Your task to perform on an android device: see sites visited before in the chrome app Image 0: 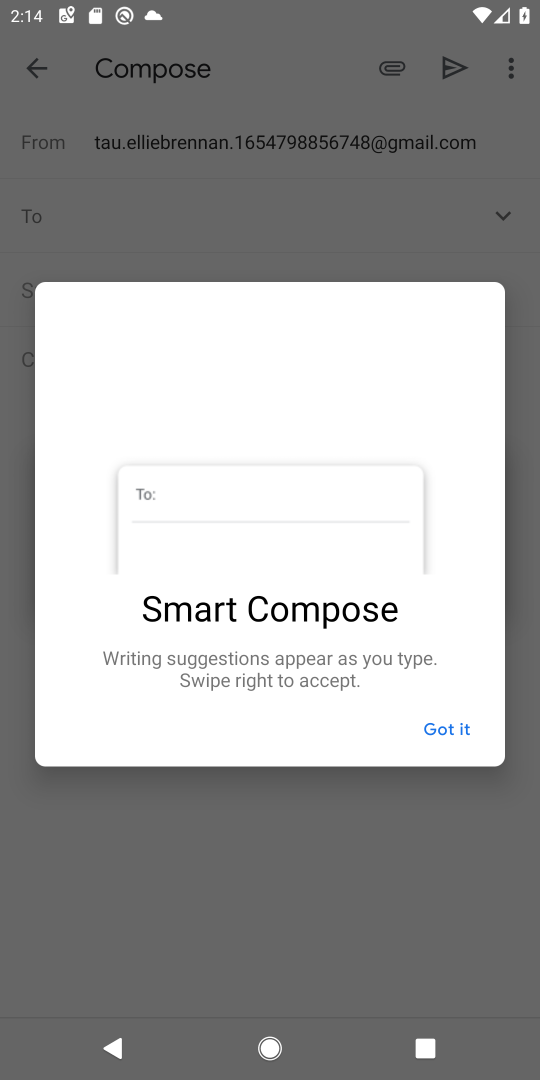
Step 0: press home button
Your task to perform on an android device: see sites visited before in the chrome app Image 1: 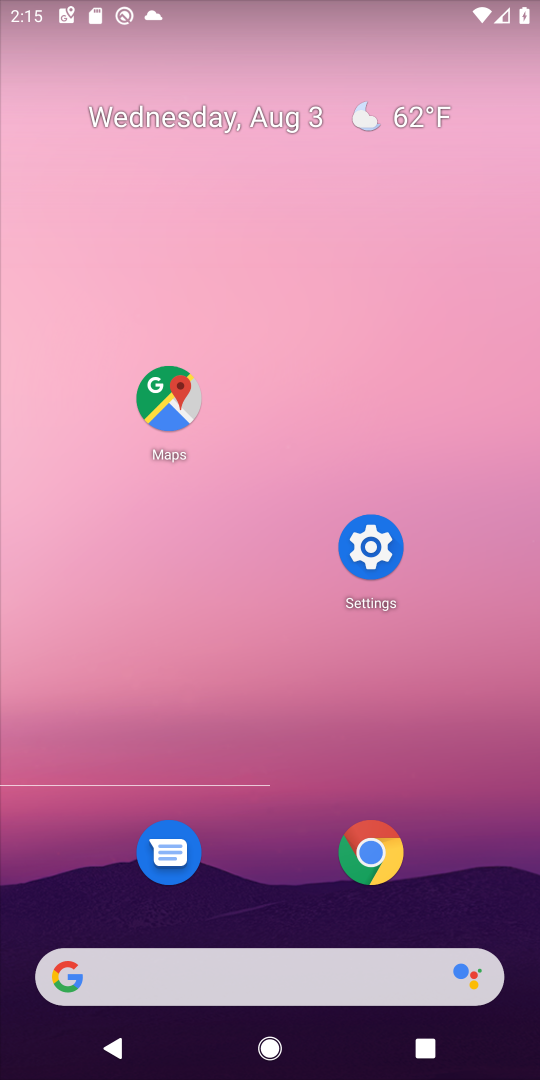
Step 1: click (370, 856)
Your task to perform on an android device: see sites visited before in the chrome app Image 2: 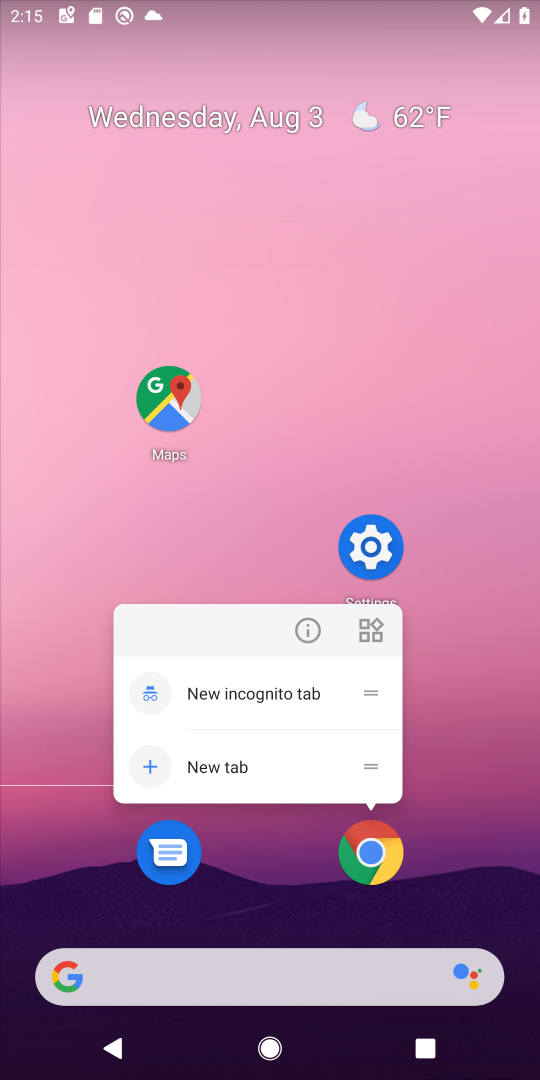
Step 2: click (368, 853)
Your task to perform on an android device: see sites visited before in the chrome app Image 3: 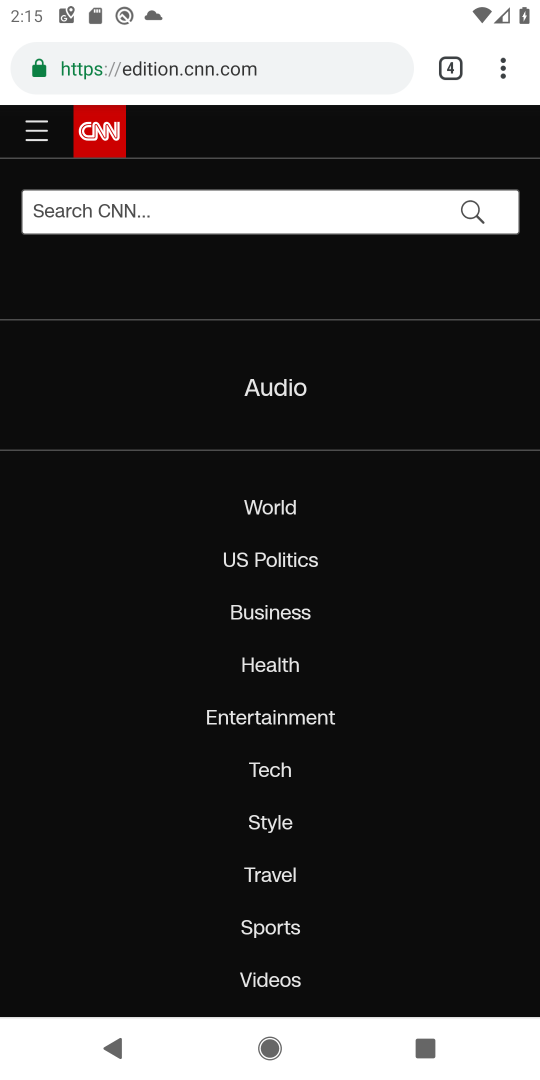
Step 3: task complete